Your task to perform on an android device: Search for Mexican restaurants on Maps Image 0: 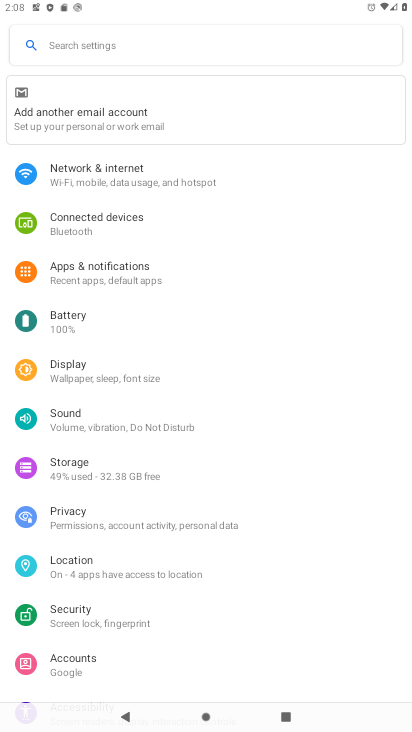
Step 0: press home button
Your task to perform on an android device: Search for Mexican restaurants on Maps Image 1: 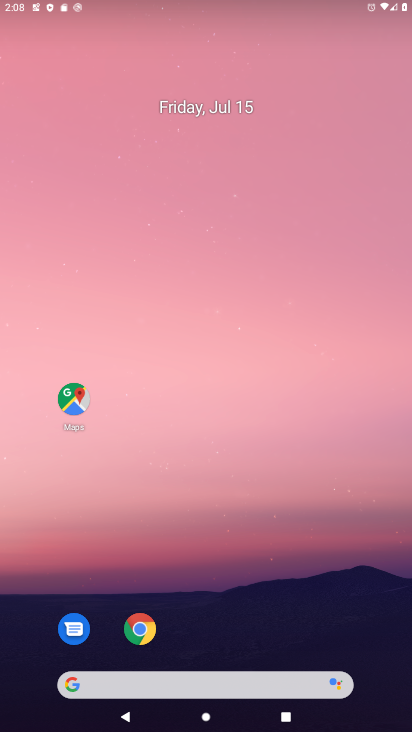
Step 1: drag from (285, 586) to (217, 272)
Your task to perform on an android device: Search for Mexican restaurants on Maps Image 2: 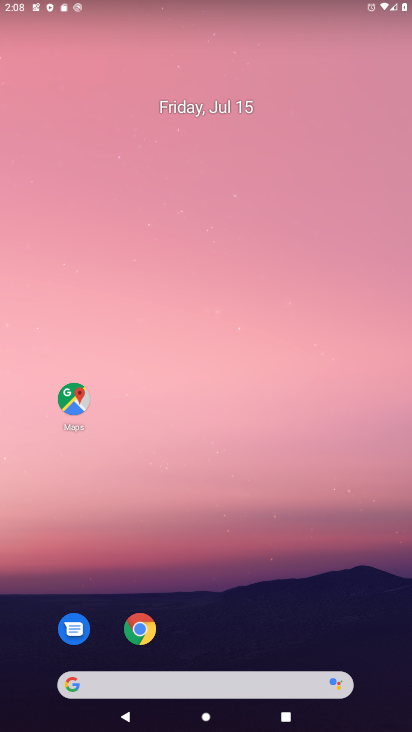
Step 2: drag from (271, 548) to (166, 44)
Your task to perform on an android device: Search for Mexican restaurants on Maps Image 3: 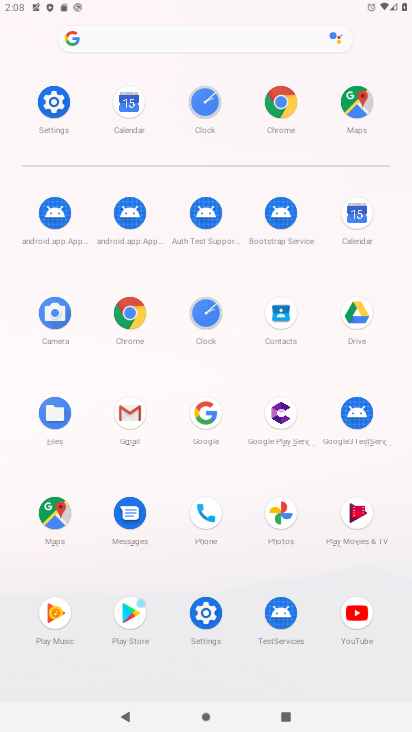
Step 3: click (363, 109)
Your task to perform on an android device: Search for Mexican restaurants on Maps Image 4: 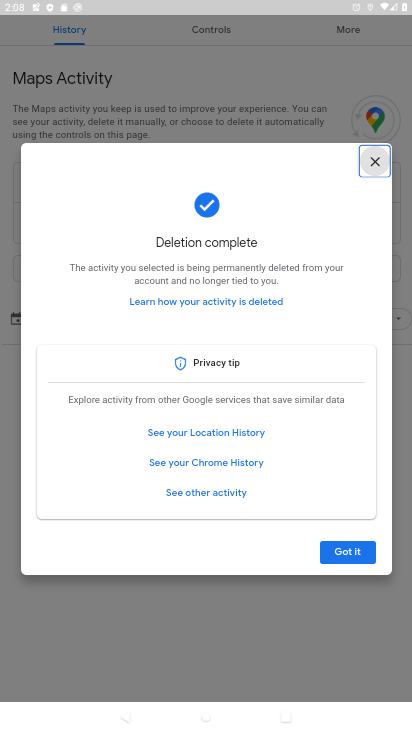
Step 4: click (344, 549)
Your task to perform on an android device: Search for Mexican restaurants on Maps Image 5: 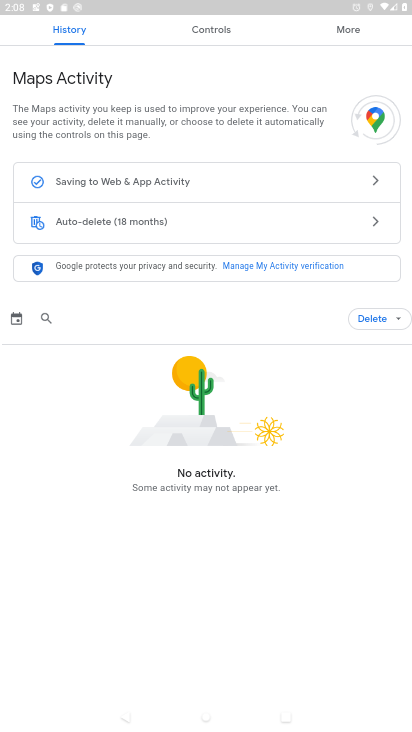
Step 5: press back button
Your task to perform on an android device: Search for Mexican restaurants on Maps Image 6: 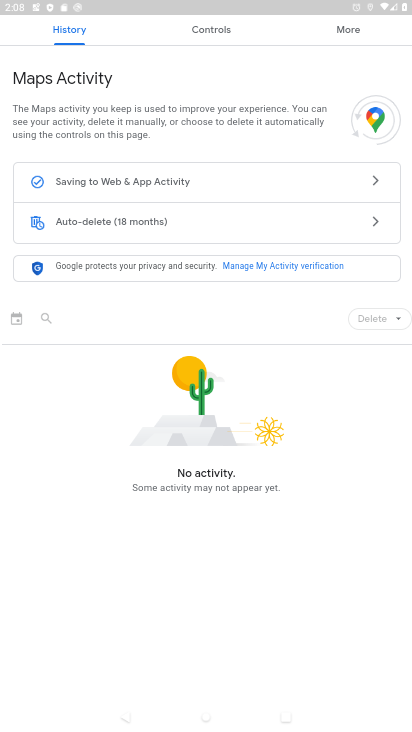
Step 6: press back button
Your task to perform on an android device: Search for Mexican restaurants on Maps Image 7: 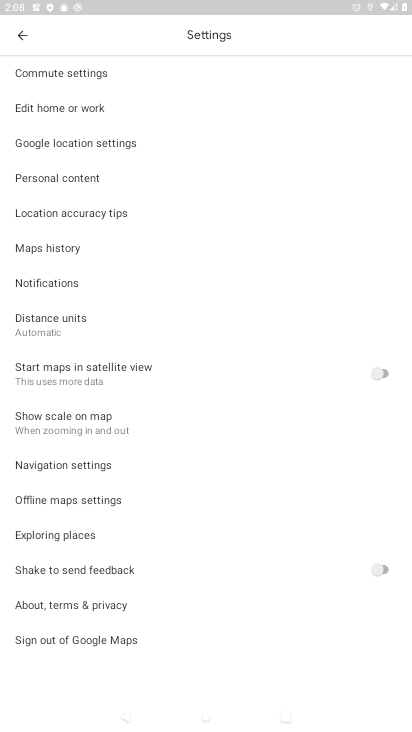
Step 7: press back button
Your task to perform on an android device: Search for Mexican restaurants on Maps Image 8: 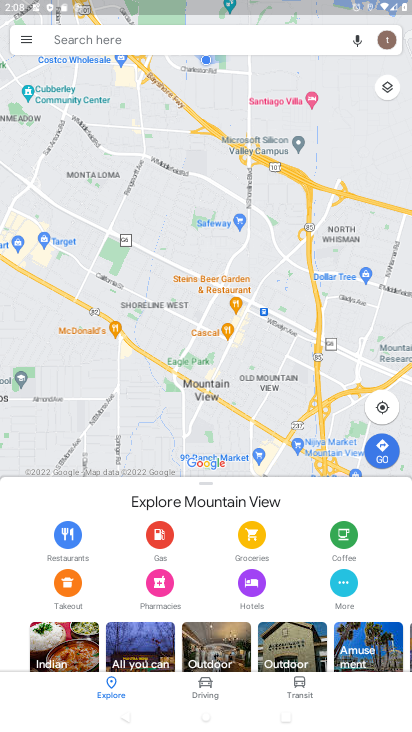
Step 8: click (124, 47)
Your task to perform on an android device: Search for Mexican restaurants on Maps Image 9: 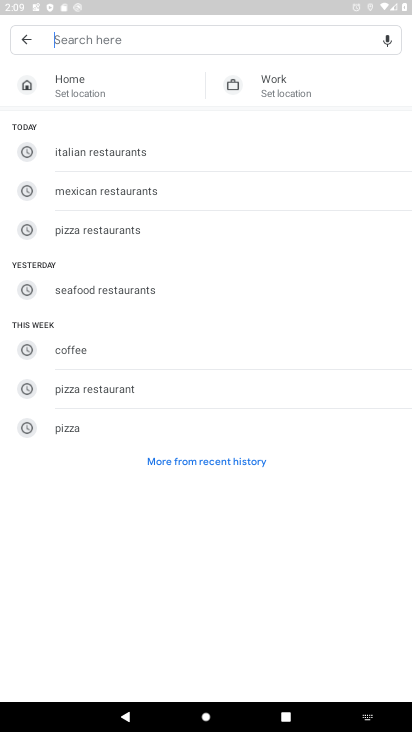
Step 9: type "Mexican restaurants"
Your task to perform on an android device: Search for Mexican restaurants on Maps Image 10: 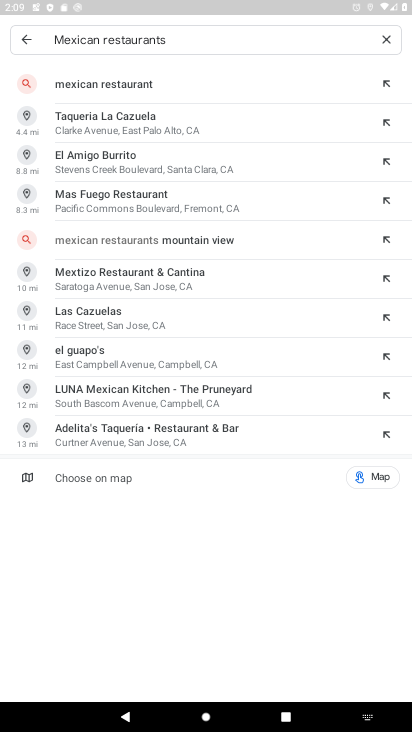
Step 10: press enter
Your task to perform on an android device: Search for Mexican restaurants on Maps Image 11: 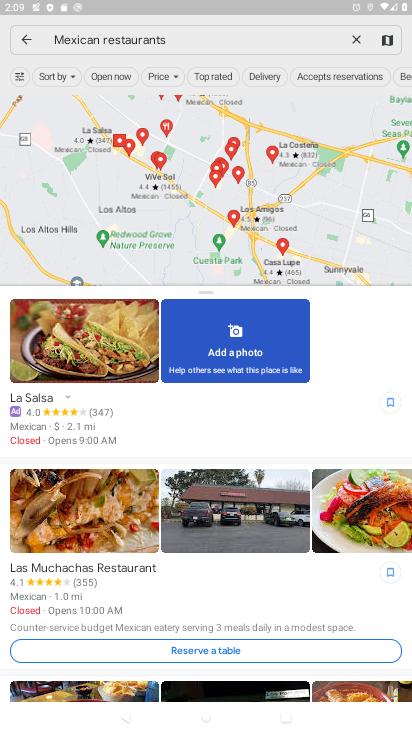
Step 11: task complete